Your task to perform on an android device: see creations saved in the google photos Image 0: 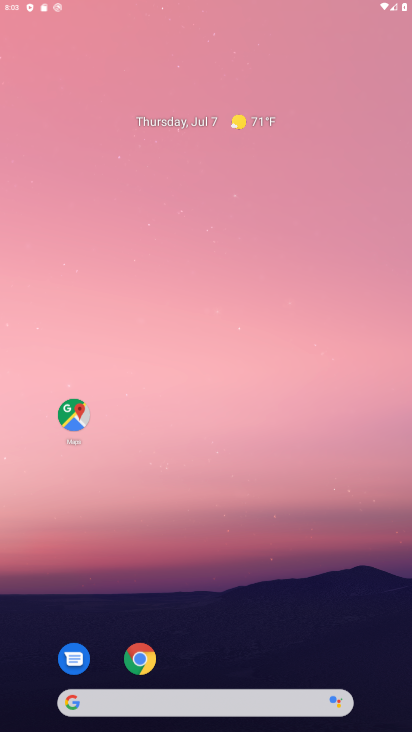
Step 0: click (141, 659)
Your task to perform on an android device: see creations saved in the google photos Image 1: 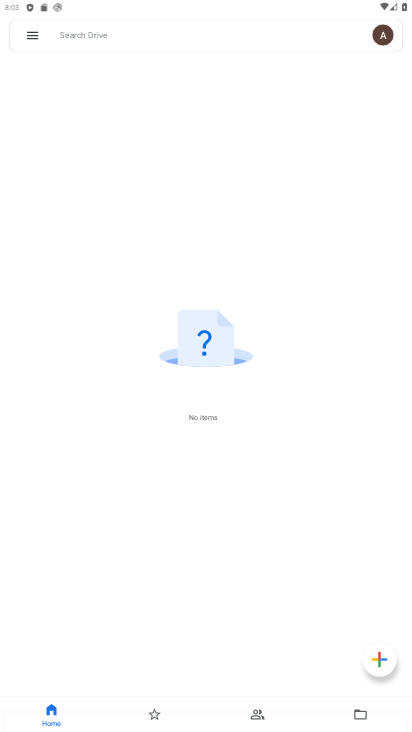
Step 1: press home button
Your task to perform on an android device: see creations saved in the google photos Image 2: 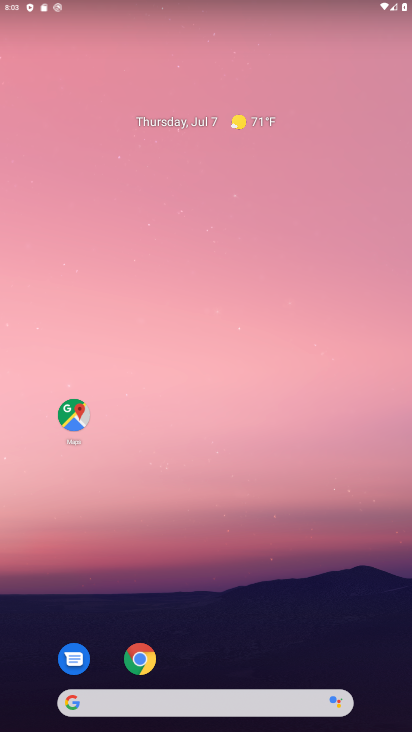
Step 2: drag from (126, 662) to (263, 124)
Your task to perform on an android device: see creations saved in the google photos Image 3: 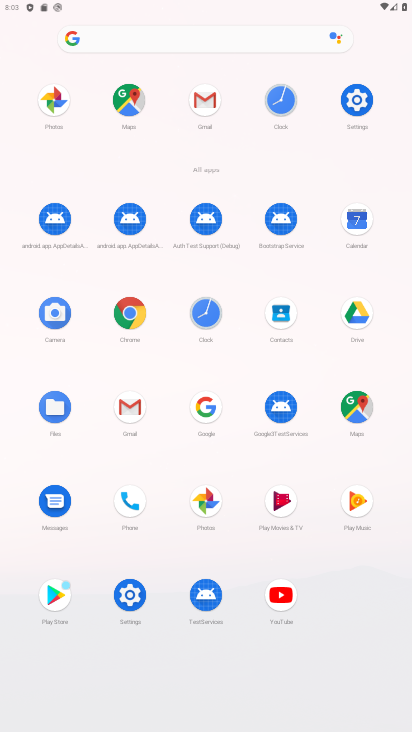
Step 3: click (206, 504)
Your task to perform on an android device: see creations saved in the google photos Image 4: 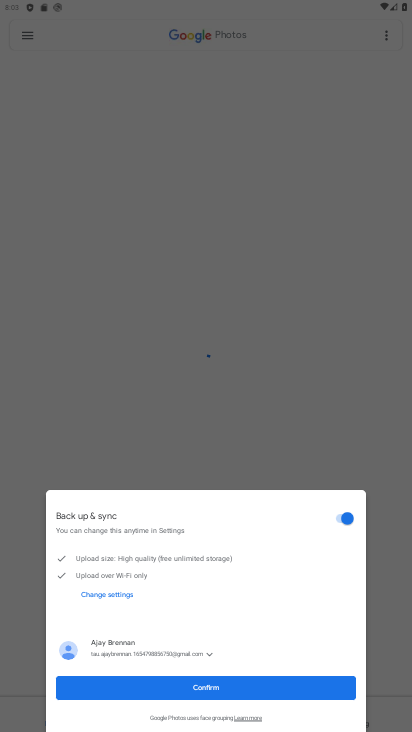
Step 4: click (241, 679)
Your task to perform on an android device: see creations saved in the google photos Image 5: 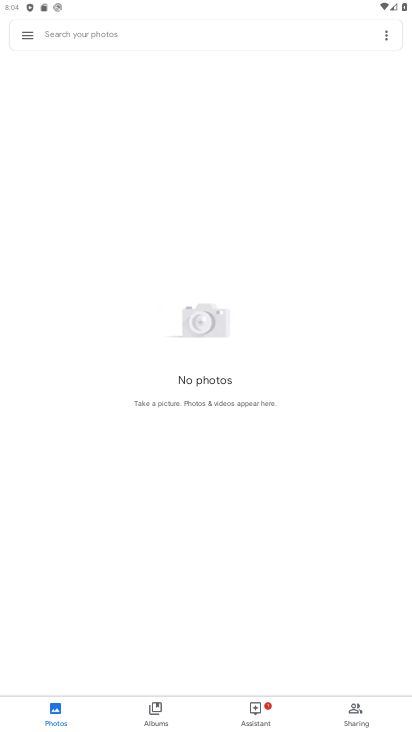
Step 5: click (217, 29)
Your task to perform on an android device: see creations saved in the google photos Image 6: 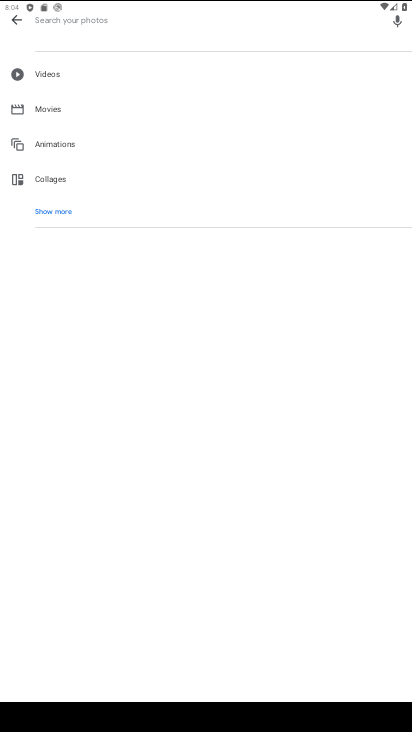
Step 6: click (63, 213)
Your task to perform on an android device: see creations saved in the google photos Image 7: 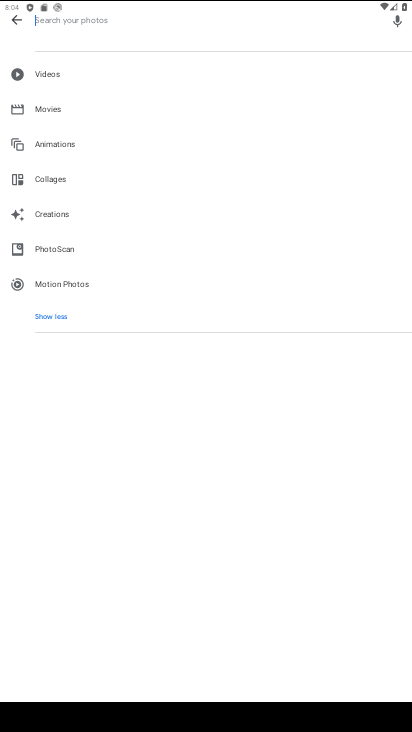
Step 7: click (71, 225)
Your task to perform on an android device: see creations saved in the google photos Image 8: 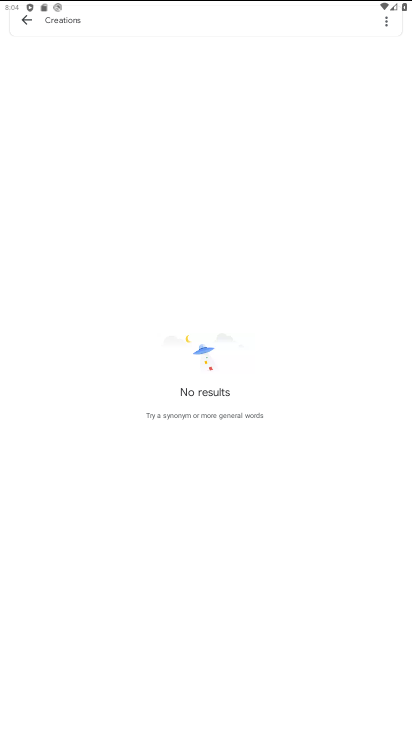
Step 8: task complete